Your task to perform on an android device: Open Google Chrome and click the shortcut for Amazon.com Image 0: 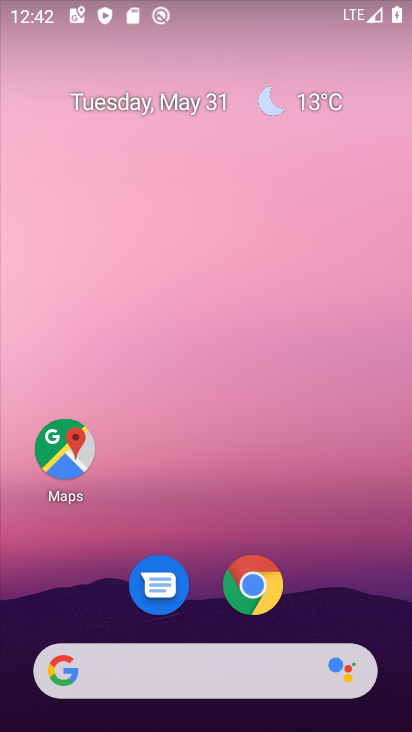
Step 0: click (264, 583)
Your task to perform on an android device: Open Google Chrome and click the shortcut for Amazon.com Image 1: 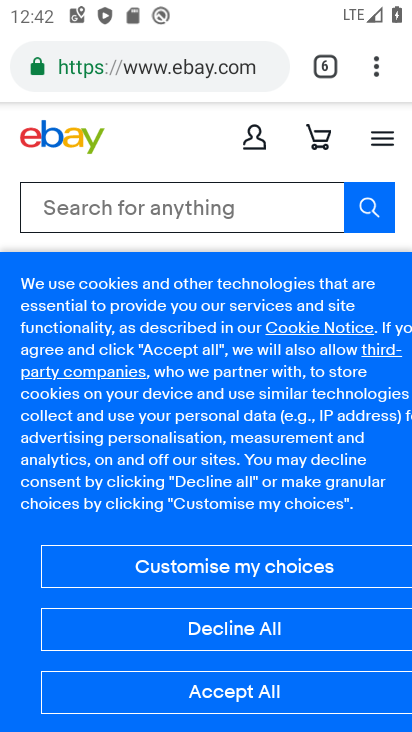
Step 1: click (369, 64)
Your task to perform on an android device: Open Google Chrome and click the shortcut for Amazon.com Image 2: 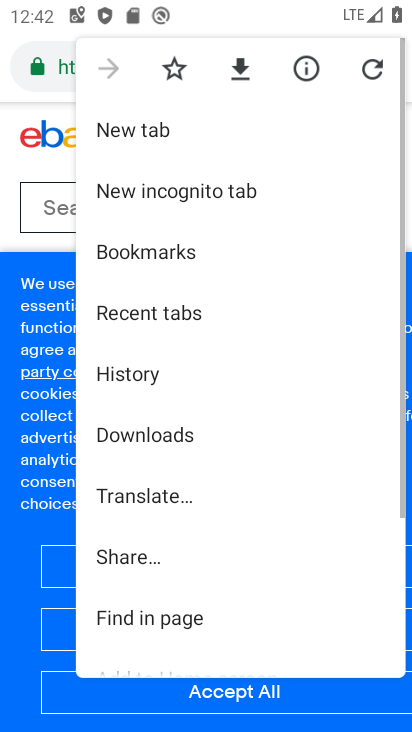
Step 2: click (302, 125)
Your task to perform on an android device: Open Google Chrome and click the shortcut for Amazon.com Image 3: 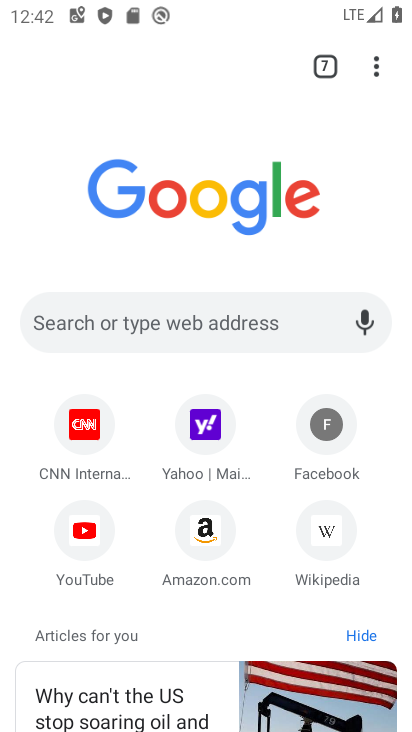
Step 3: click (200, 539)
Your task to perform on an android device: Open Google Chrome and click the shortcut for Amazon.com Image 4: 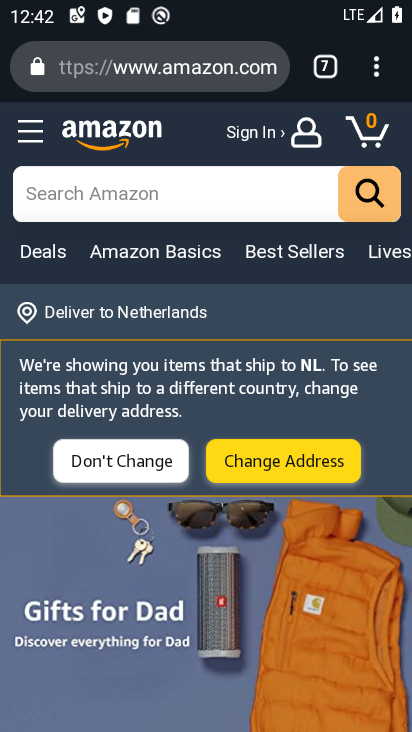
Step 4: task complete